Your task to perform on an android device: When is my next appointment? Image 0: 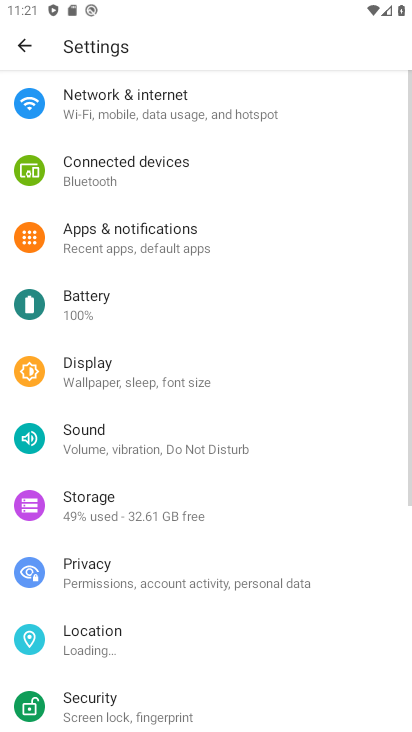
Step 0: press home button
Your task to perform on an android device: When is my next appointment? Image 1: 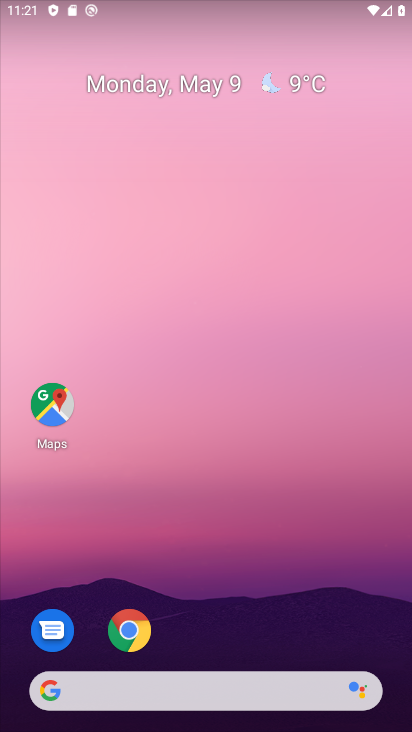
Step 1: drag from (291, 512) to (148, 5)
Your task to perform on an android device: When is my next appointment? Image 2: 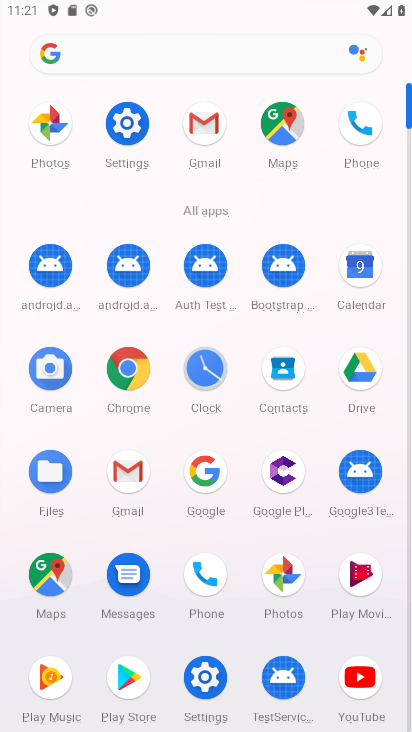
Step 2: click (358, 273)
Your task to perform on an android device: When is my next appointment? Image 3: 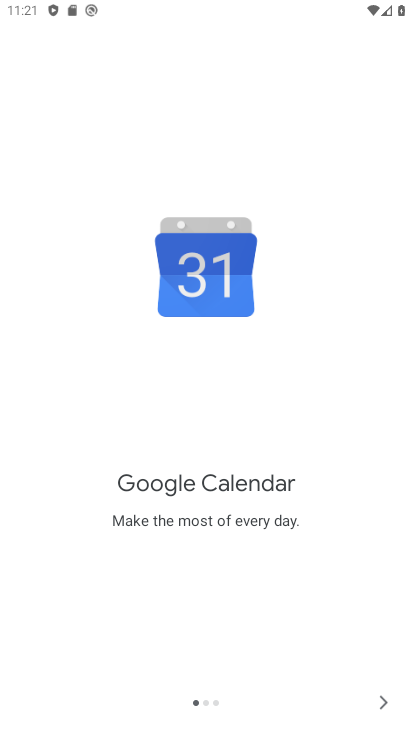
Step 3: click (381, 703)
Your task to perform on an android device: When is my next appointment? Image 4: 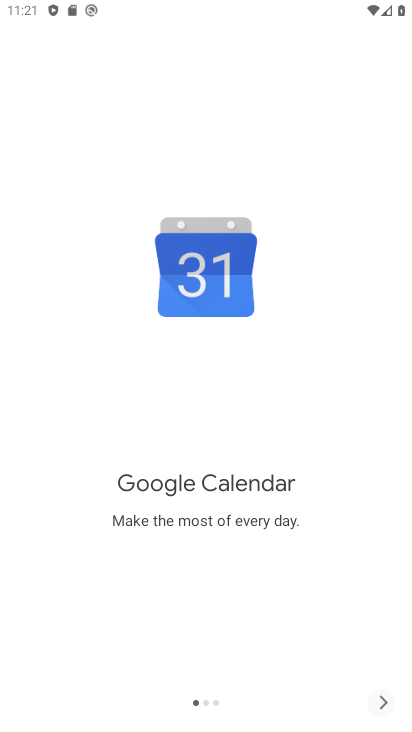
Step 4: click (381, 703)
Your task to perform on an android device: When is my next appointment? Image 5: 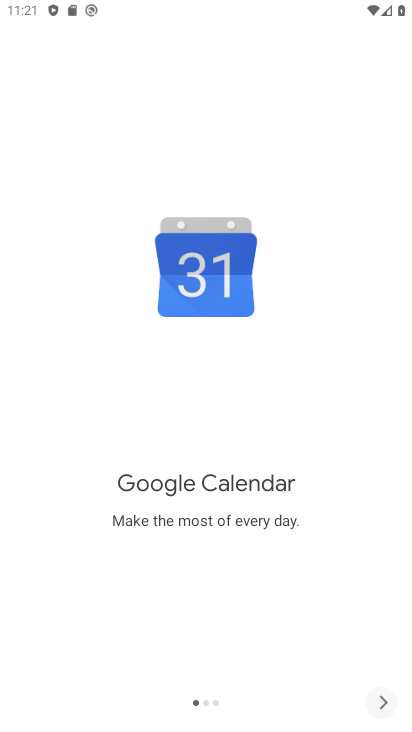
Step 5: click (381, 703)
Your task to perform on an android device: When is my next appointment? Image 6: 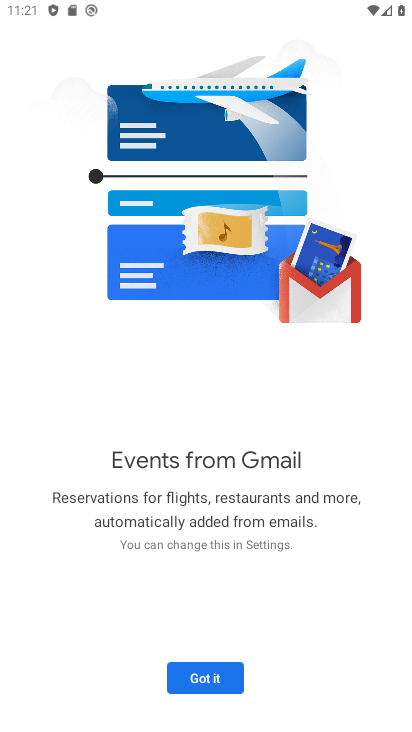
Step 6: click (204, 669)
Your task to perform on an android device: When is my next appointment? Image 7: 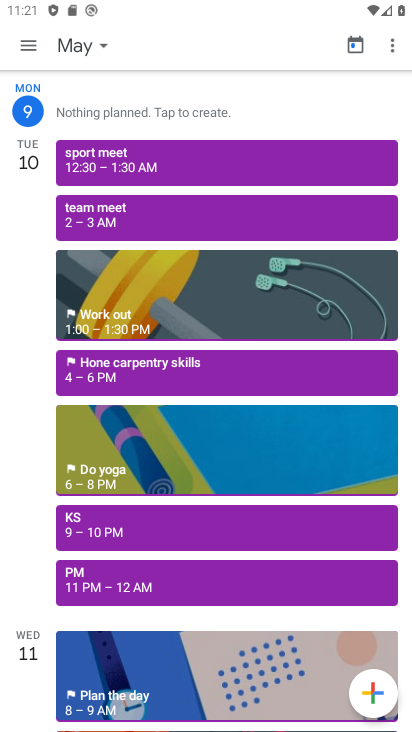
Step 7: task complete